Your task to perform on an android device: move an email to a new category in the gmail app Image 0: 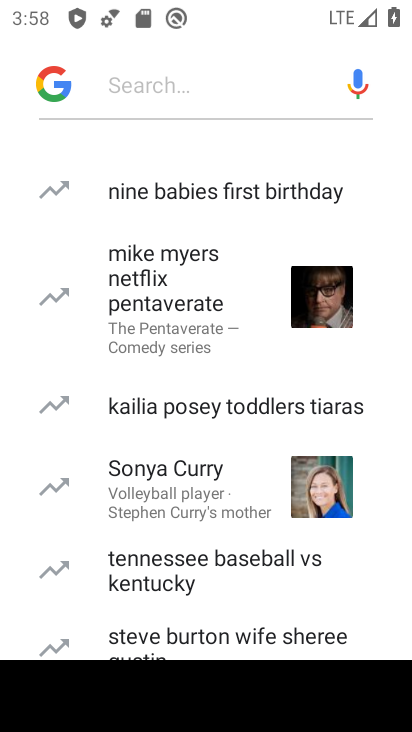
Step 0: press home button
Your task to perform on an android device: move an email to a new category in the gmail app Image 1: 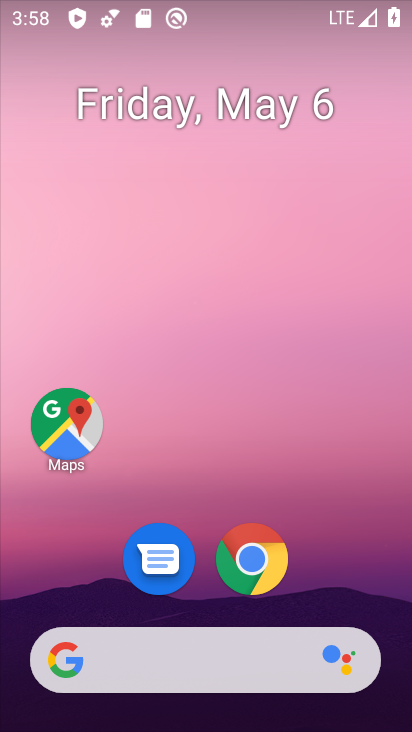
Step 1: drag from (171, 623) to (152, 190)
Your task to perform on an android device: move an email to a new category in the gmail app Image 2: 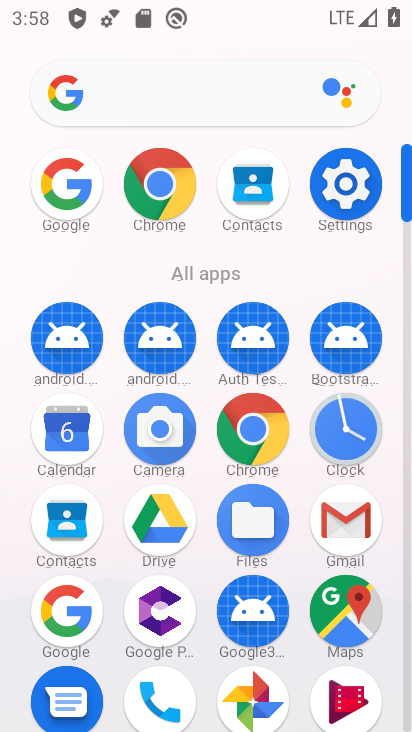
Step 2: click (351, 528)
Your task to perform on an android device: move an email to a new category in the gmail app Image 3: 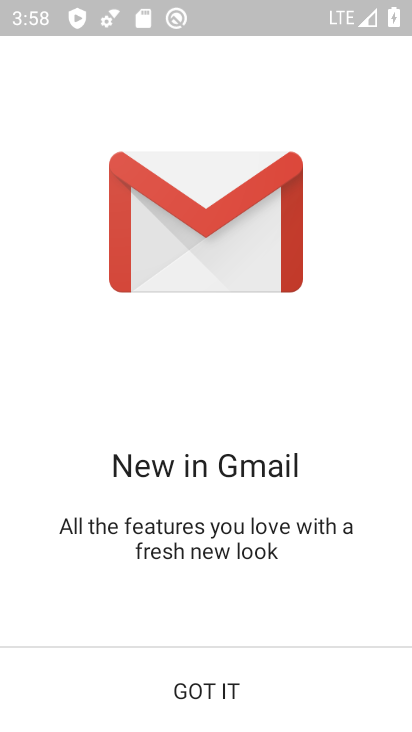
Step 3: click (235, 691)
Your task to perform on an android device: move an email to a new category in the gmail app Image 4: 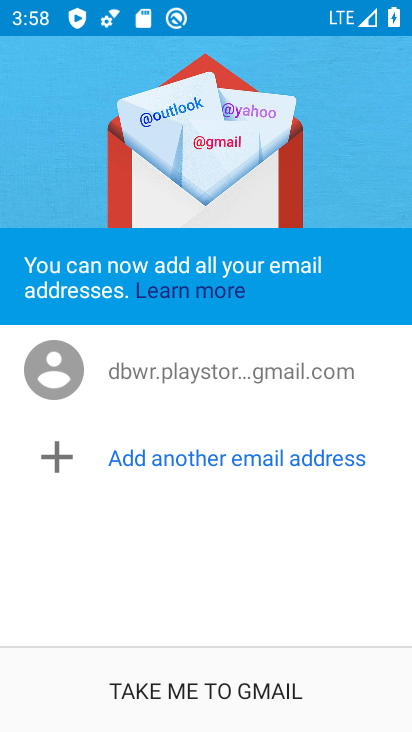
Step 4: click (230, 691)
Your task to perform on an android device: move an email to a new category in the gmail app Image 5: 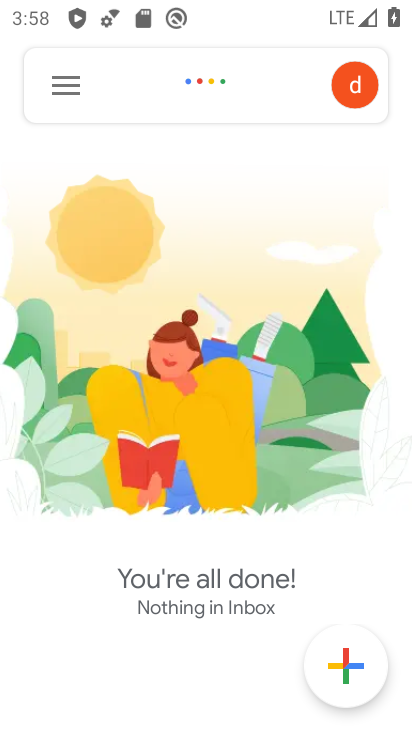
Step 5: click (67, 91)
Your task to perform on an android device: move an email to a new category in the gmail app Image 6: 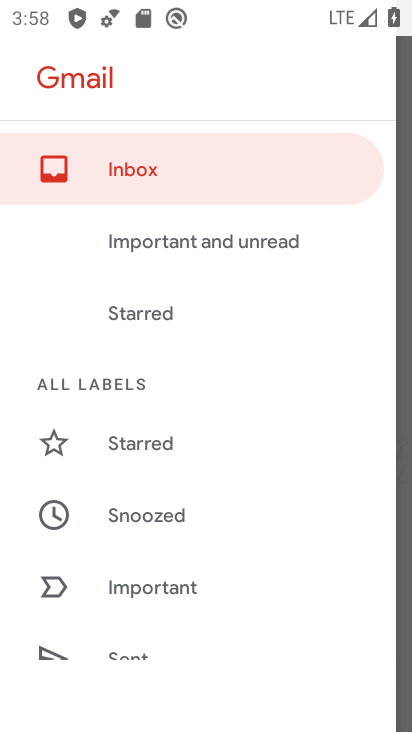
Step 6: click (135, 174)
Your task to perform on an android device: move an email to a new category in the gmail app Image 7: 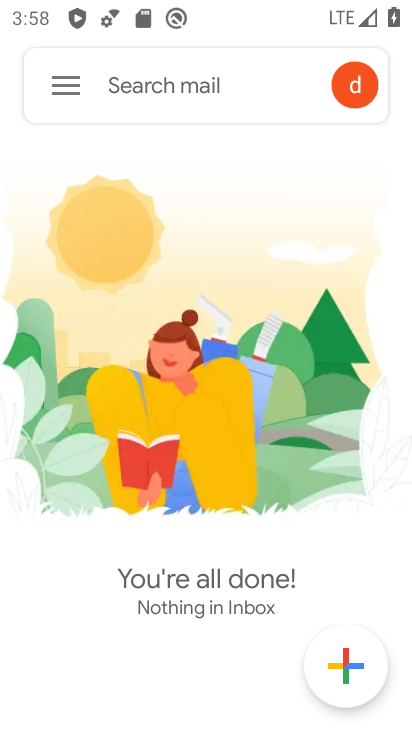
Step 7: task complete